Your task to perform on an android device: toggle pop-ups in chrome Image 0: 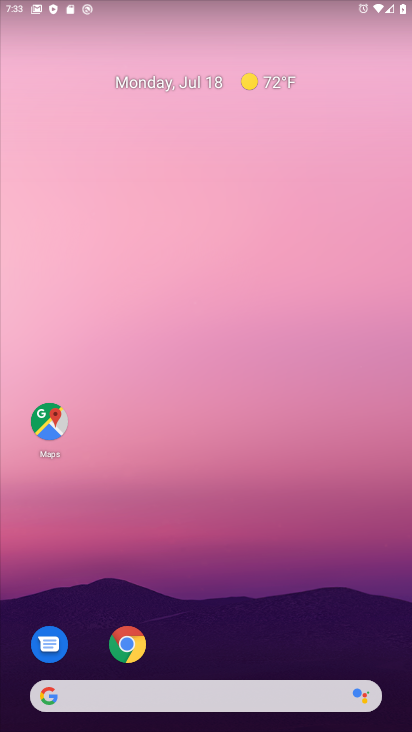
Step 0: drag from (368, 650) to (138, 32)
Your task to perform on an android device: toggle pop-ups in chrome Image 1: 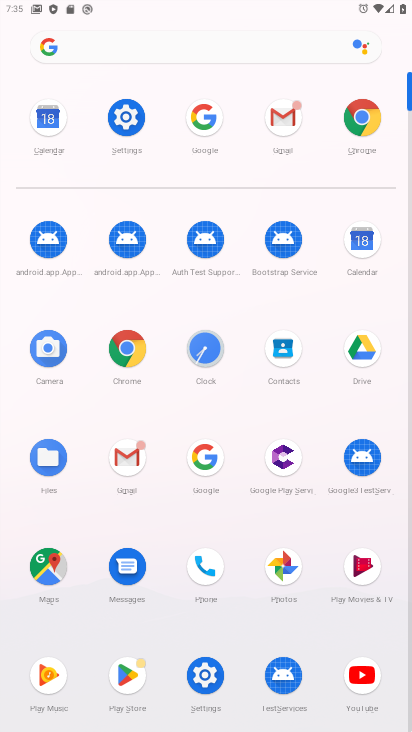
Step 1: click (351, 128)
Your task to perform on an android device: toggle pop-ups in chrome Image 2: 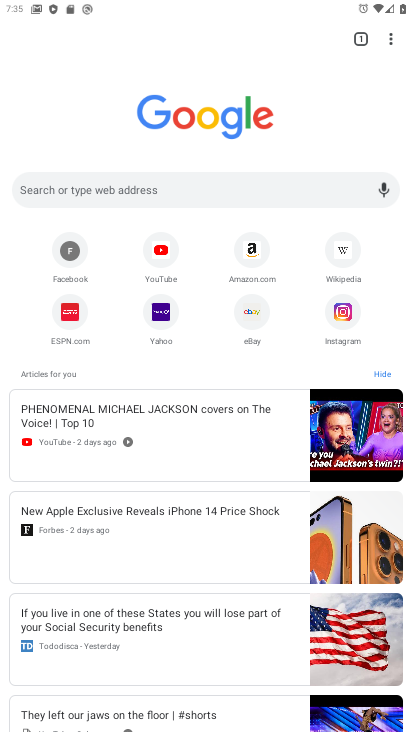
Step 2: click (387, 37)
Your task to perform on an android device: toggle pop-ups in chrome Image 3: 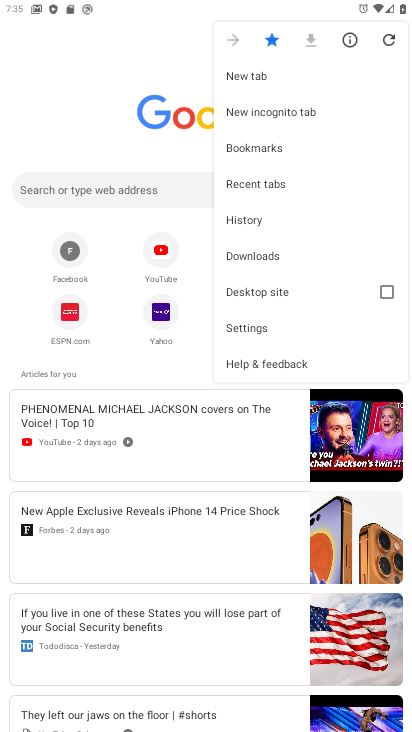
Step 3: click (241, 323)
Your task to perform on an android device: toggle pop-ups in chrome Image 4: 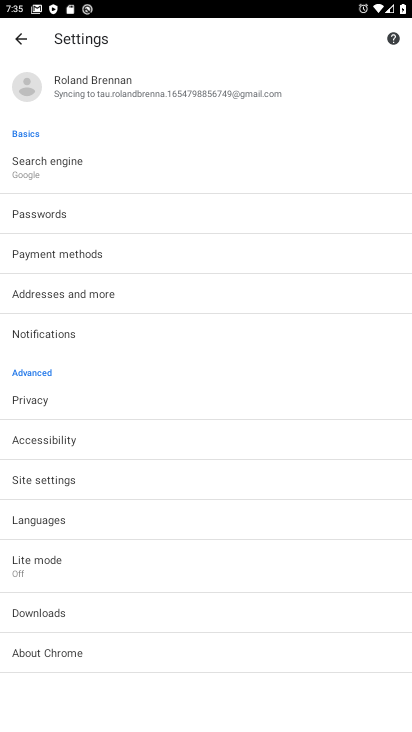
Step 4: click (83, 473)
Your task to perform on an android device: toggle pop-ups in chrome Image 5: 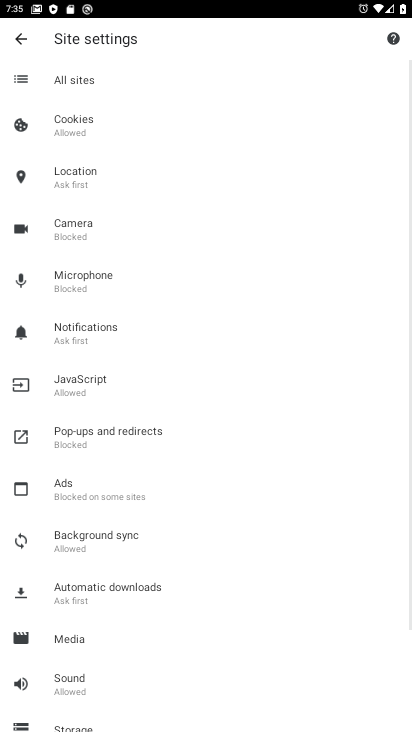
Step 5: click (133, 434)
Your task to perform on an android device: toggle pop-ups in chrome Image 6: 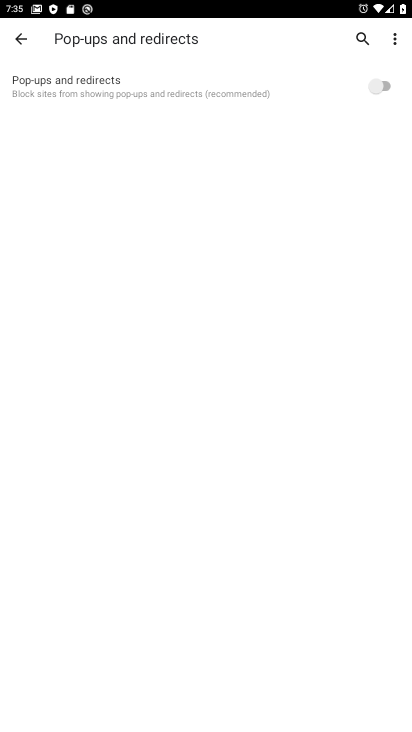
Step 6: click (371, 90)
Your task to perform on an android device: toggle pop-ups in chrome Image 7: 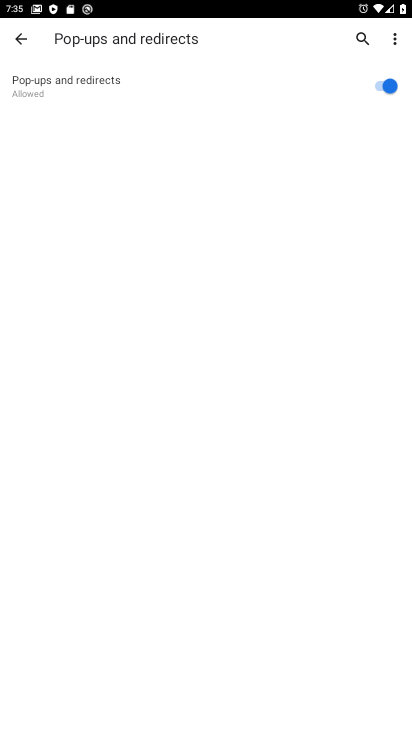
Step 7: task complete